Your task to perform on an android device: Open Chrome and go to settings Image 0: 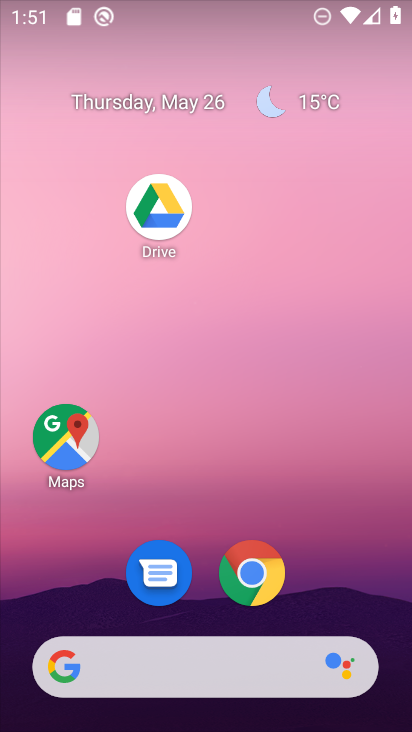
Step 0: press home button
Your task to perform on an android device: Open Chrome and go to settings Image 1: 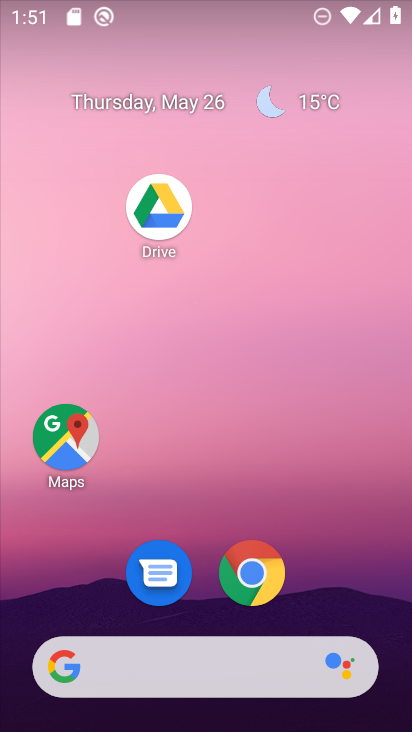
Step 1: click (267, 579)
Your task to perform on an android device: Open Chrome and go to settings Image 2: 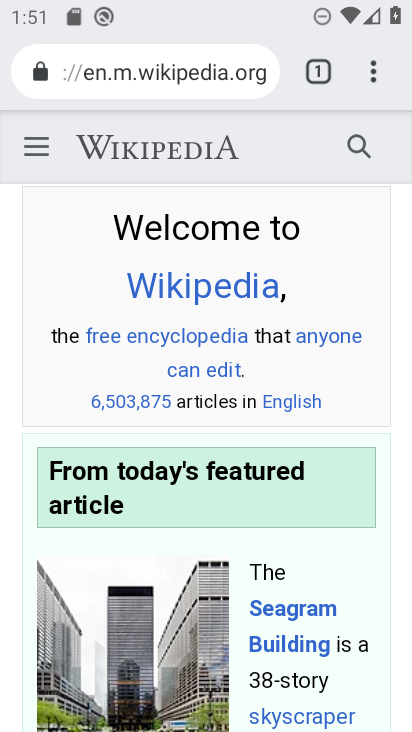
Step 2: click (387, 52)
Your task to perform on an android device: Open Chrome and go to settings Image 3: 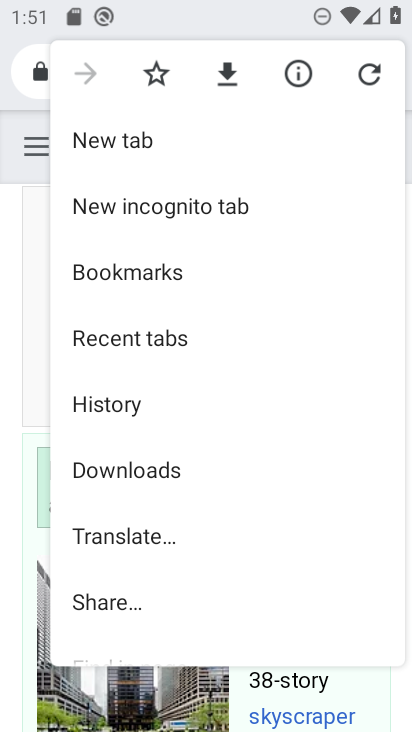
Step 3: drag from (217, 517) to (188, 225)
Your task to perform on an android device: Open Chrome and go to settings Image 4: 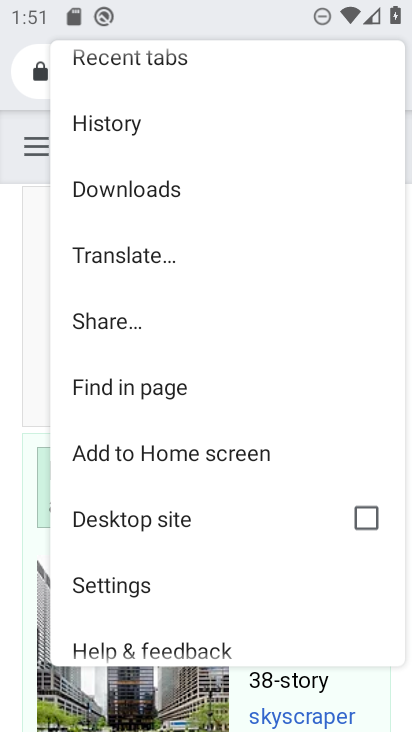
Step 4: click (164, 586)
Your task to perform on an android device: Open Chrome and go to settings Image 5: 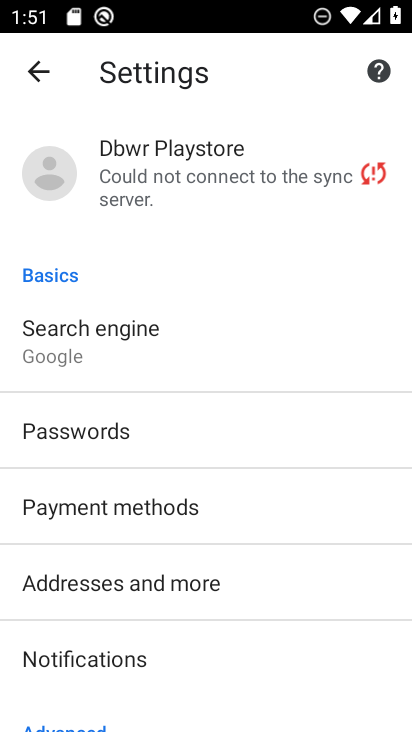
Step 5: task complete